Your task to perform on an android device: Search for vegetarian restaurants on Maps Image 0: 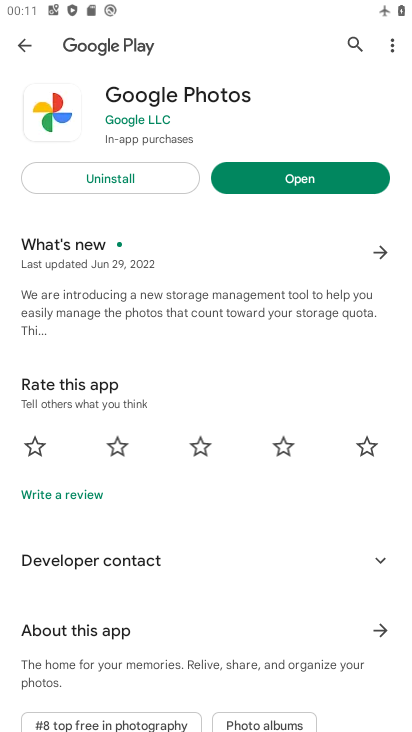
Step 0: press home button
Your task to perform on an android device: Search for vegetarian restaurants on Maps Image 1: 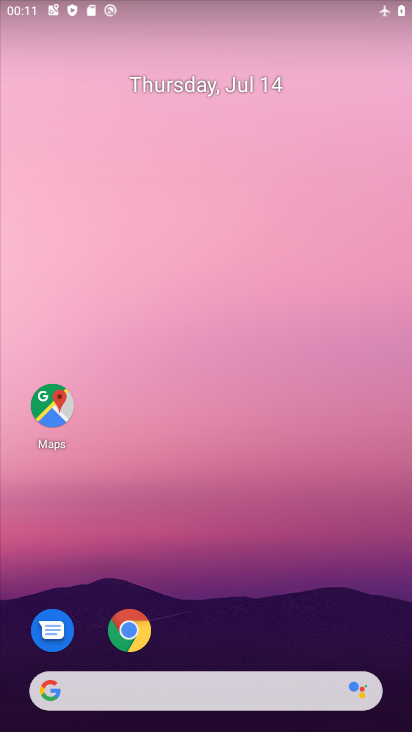
Step 1: drag from (364, 591) to (364, 64)
Your task to perform on an android device: Search for vegetarian restaurants on Maps Image 2: 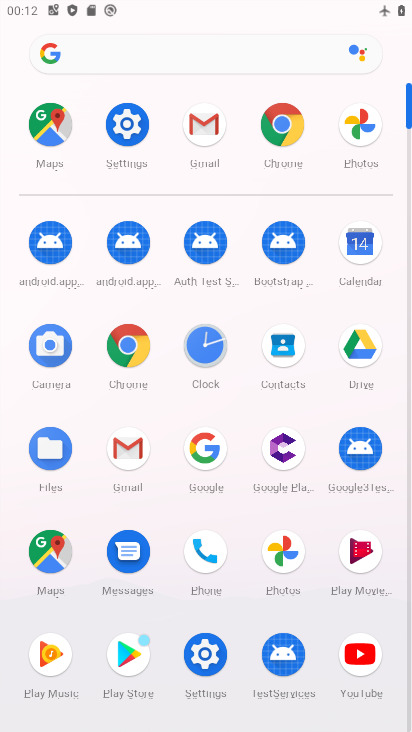
Step 2: click (55, 549)
Your task to perform on an android device: Search for vegetarian restaurants on Maps Image 3: 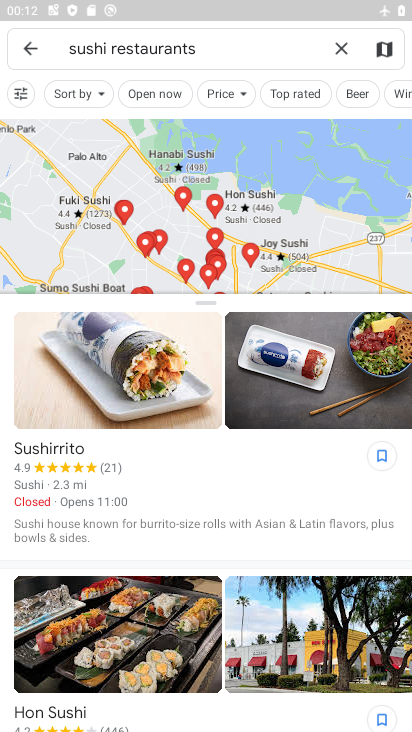
Step 3: press back button
Your task to perform on an android device: Search for vegetarian restaurants on Maps Image 4: 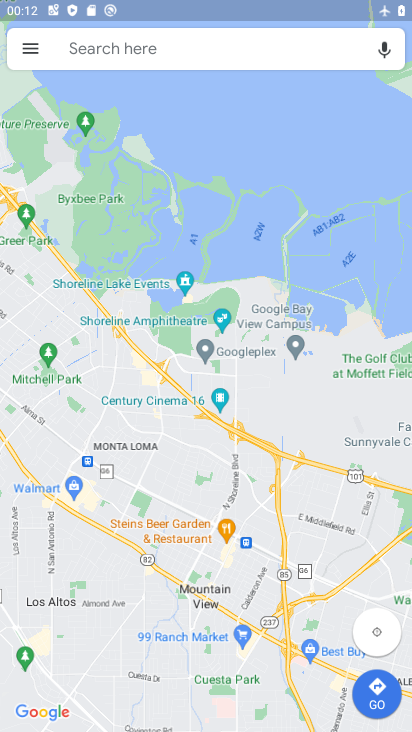
Step 4: type "vegetrain restaurants"
Your task to perform on an android device: Search for vegetarian restaurants on Maps Image 5: 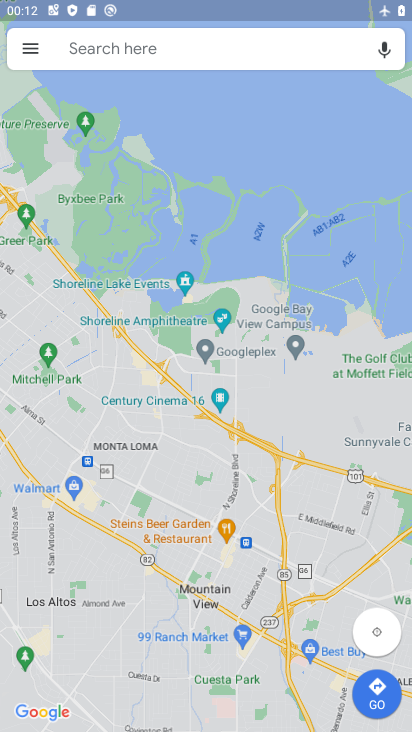
Step 5: click (178, 47)
Your task to perform on an android device: Search for vegetarian restaurants on Maps Image 6: 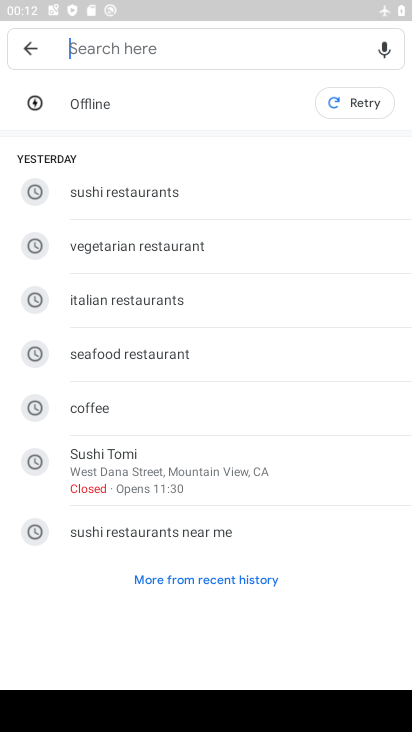
Step 6: type "vegetrain restaurants"
Your task to perform on an android device: Search for vegetarian restaurants on Maps Image 7: 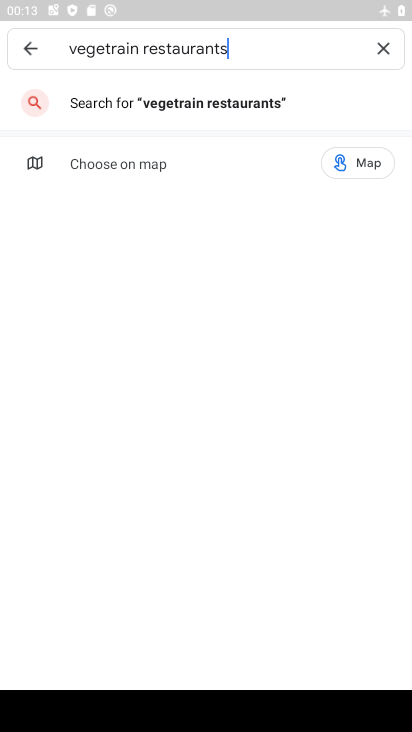
Step 7: task complete